Your task to perform on an android device: search for starred emails in the gmail app Image 0: 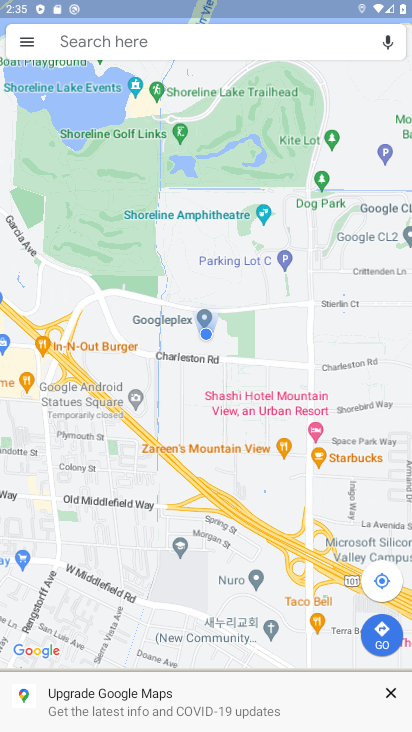
Step 0: press home button
Your task to perform on an android device: search for starred emails in the gmail app Image 1: 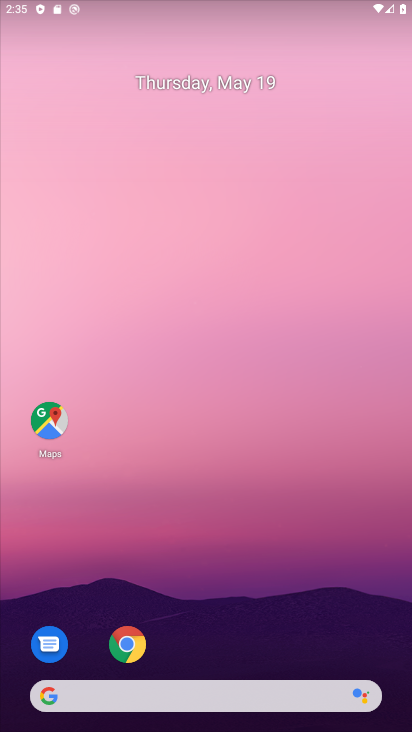
Step 1: drag from (266, 638) to (265, 176)
Your task to perform on an android device: search for starred emails in the gmail app Image 2: 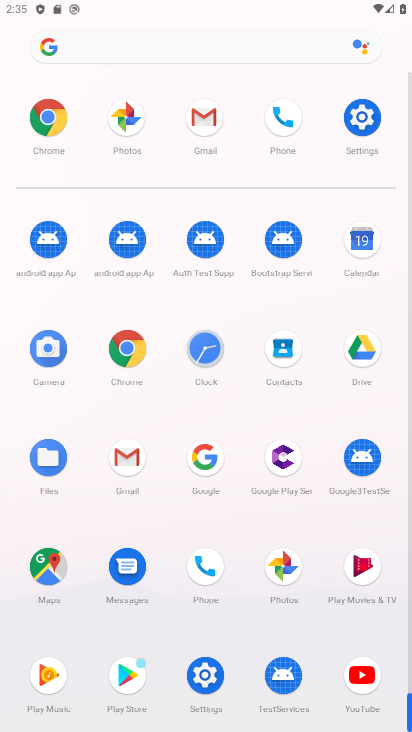
Step 2: click (117, 445)
Your task to perform on an android device: search for starred emails in the gmail app Image 3: 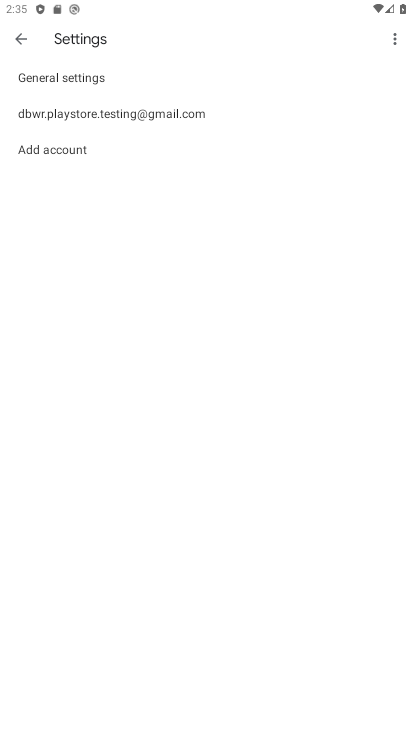
Step 3: click (191, 111)
Your task to perform on an android device: search for starred emails in the gmail app Image 4: 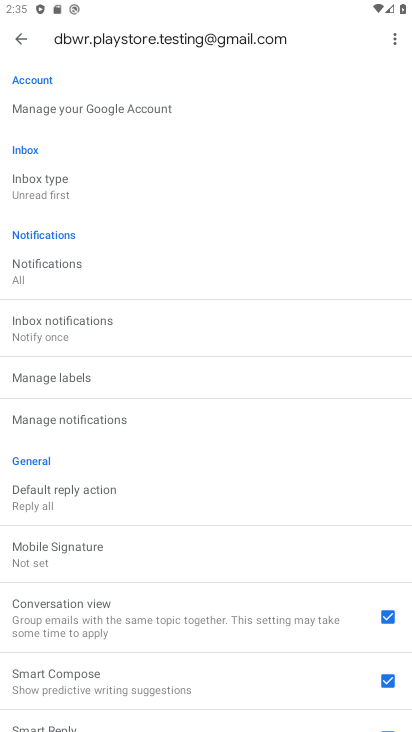
Step 4: click (14, 31)
Your task to perform on an android device: search for starred emails in the gmail app Image 5: 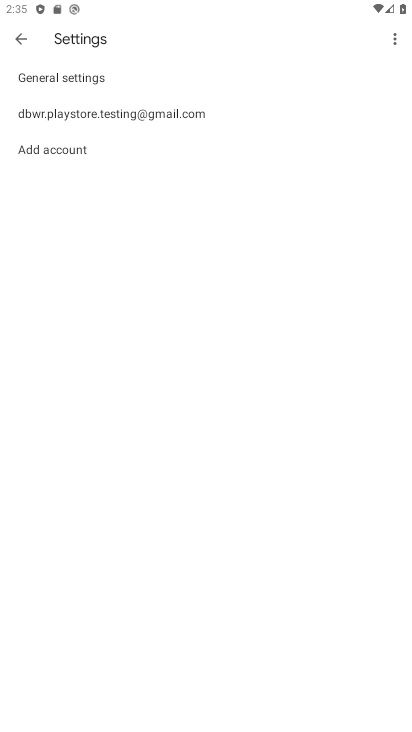
Step 5: click (29, 41)
Your task to perform on an android device: search for starred emails in the gmail app Image 6: 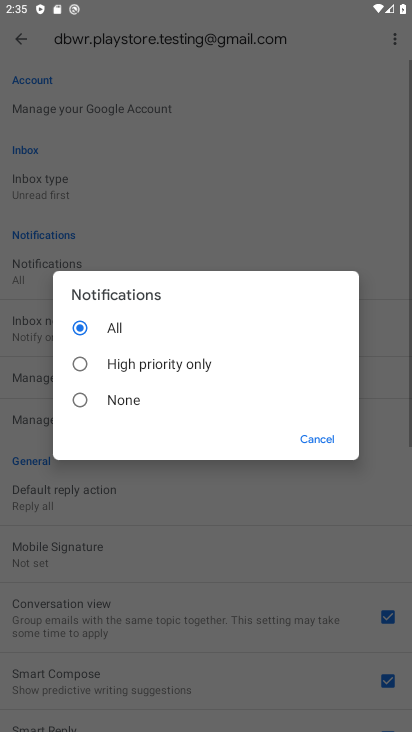
Step 6: click (331, 434)
Your task to perform on an android device: search for starred emails in the gmail app Image 7: 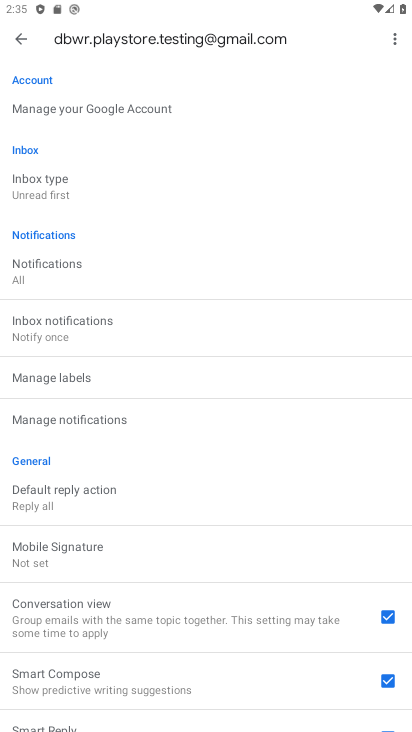
Step 7: click (5, 37)
Your task to perform on an android device: search for starred emails in the gmail app Image 8: 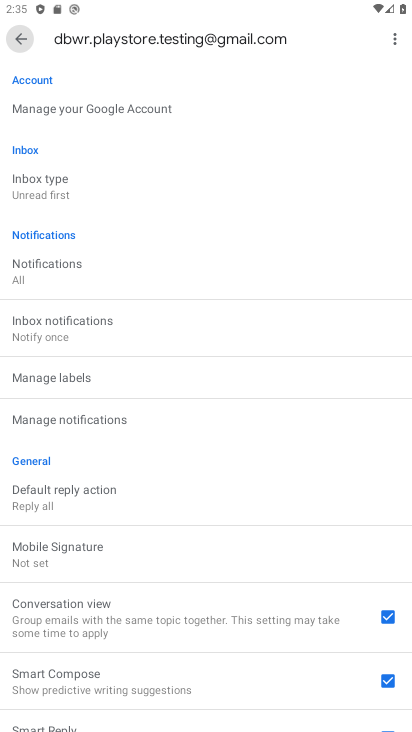
Step 8: click (5, 37)
Your task to perform on an android device: search for starred emails in the gmail app Image 9: 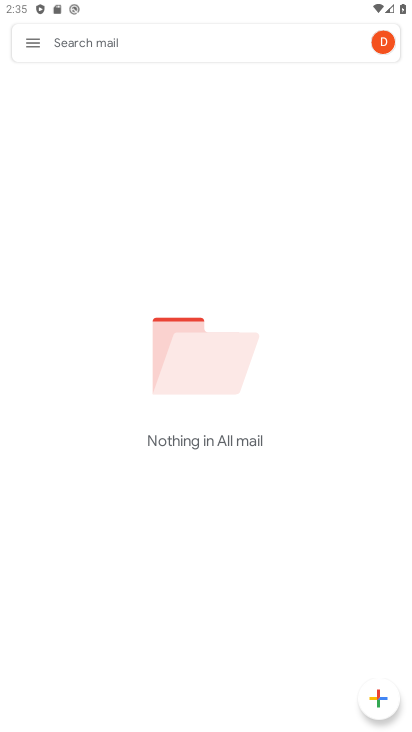
Step 9: click (37, 34)
Your task to perform on an android device: search for starred emails in the gmail app Image 10: 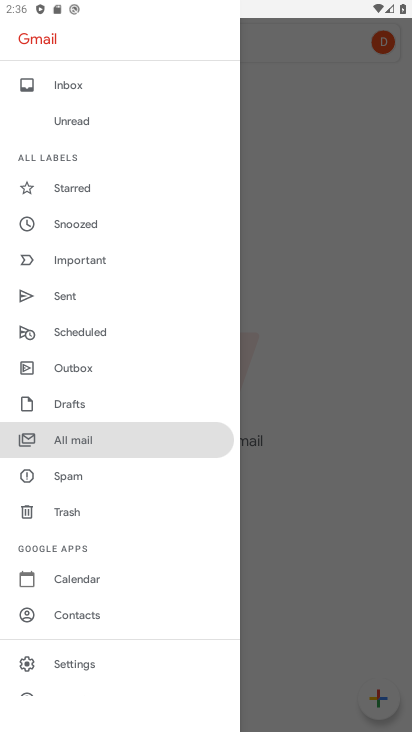
Step 10: click (91, 179)
Your task to perform on an android device: search for starred emails in the gmail app Image 11: 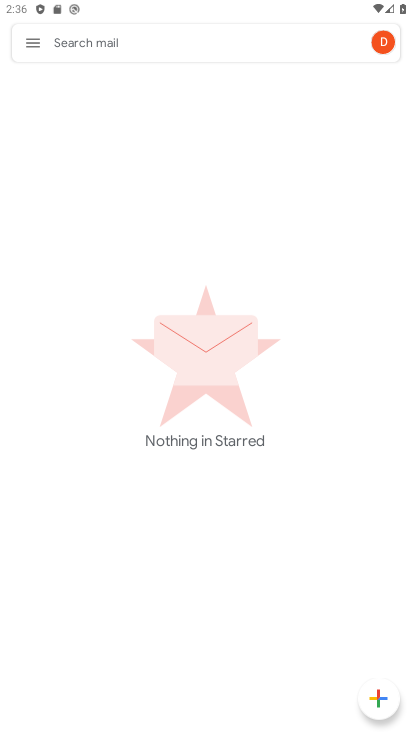
Step 11: task complete